Your task to perform on an android device: uninstall "Gmail" Image 0: 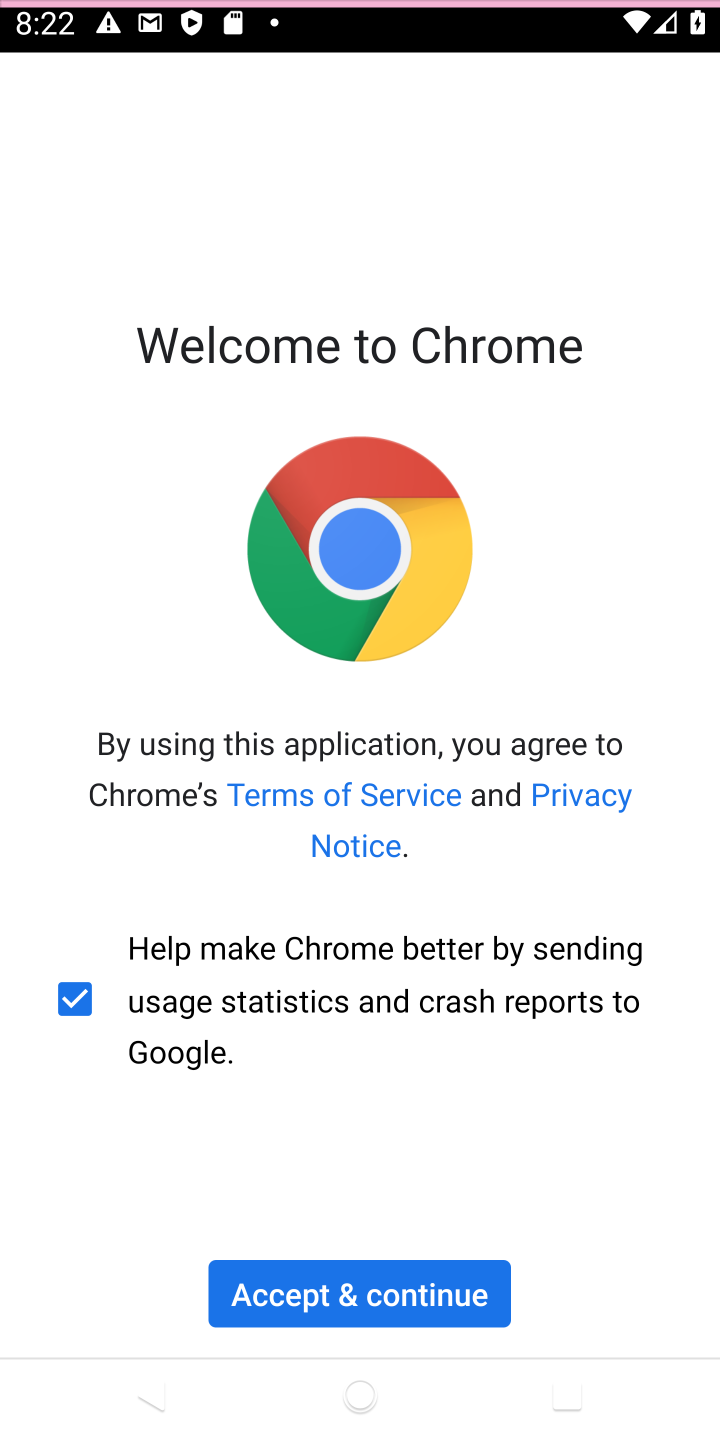
Step 0: press home button
Your task to perform on an android device: uninstall "Gmail" Image 1: 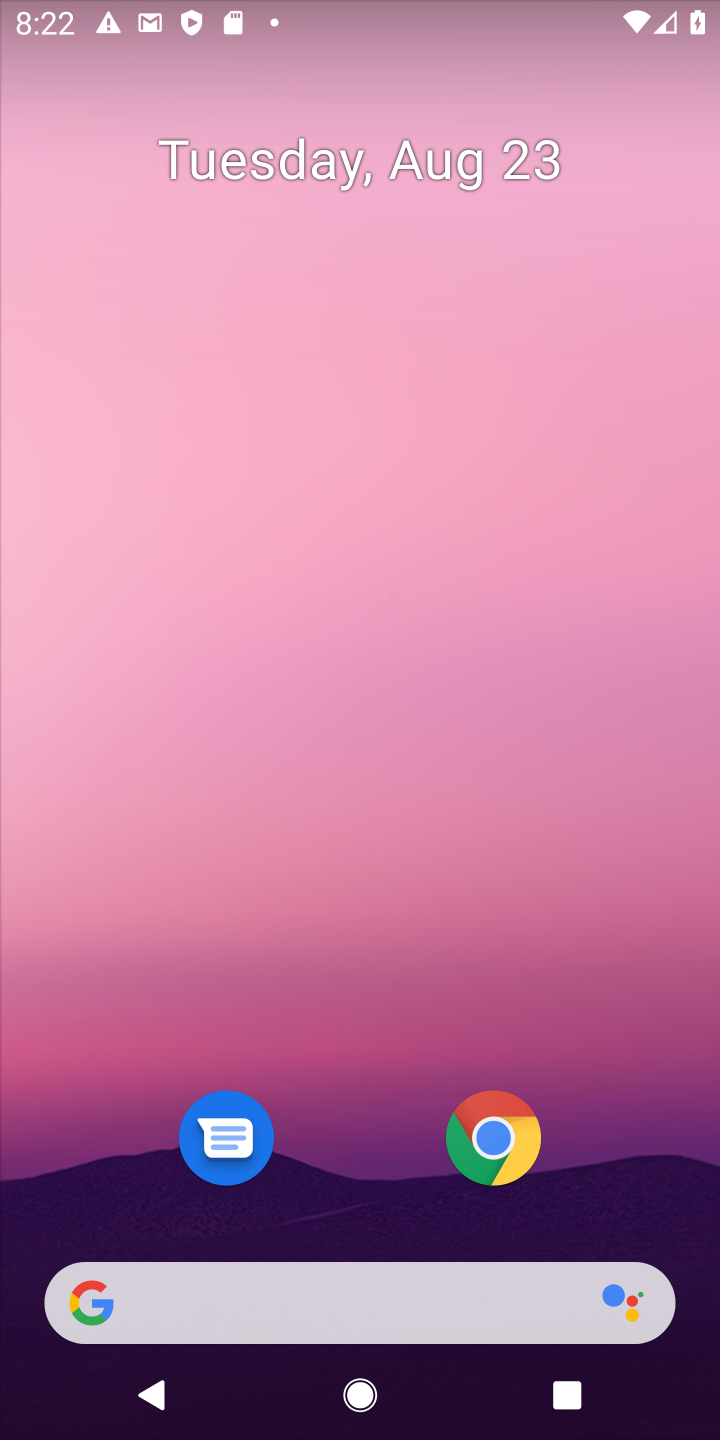
Step 1: drag from (637, 1037) to (599, 190)
Your task to perform on an android device: uninstall "Gmail" Image 2: 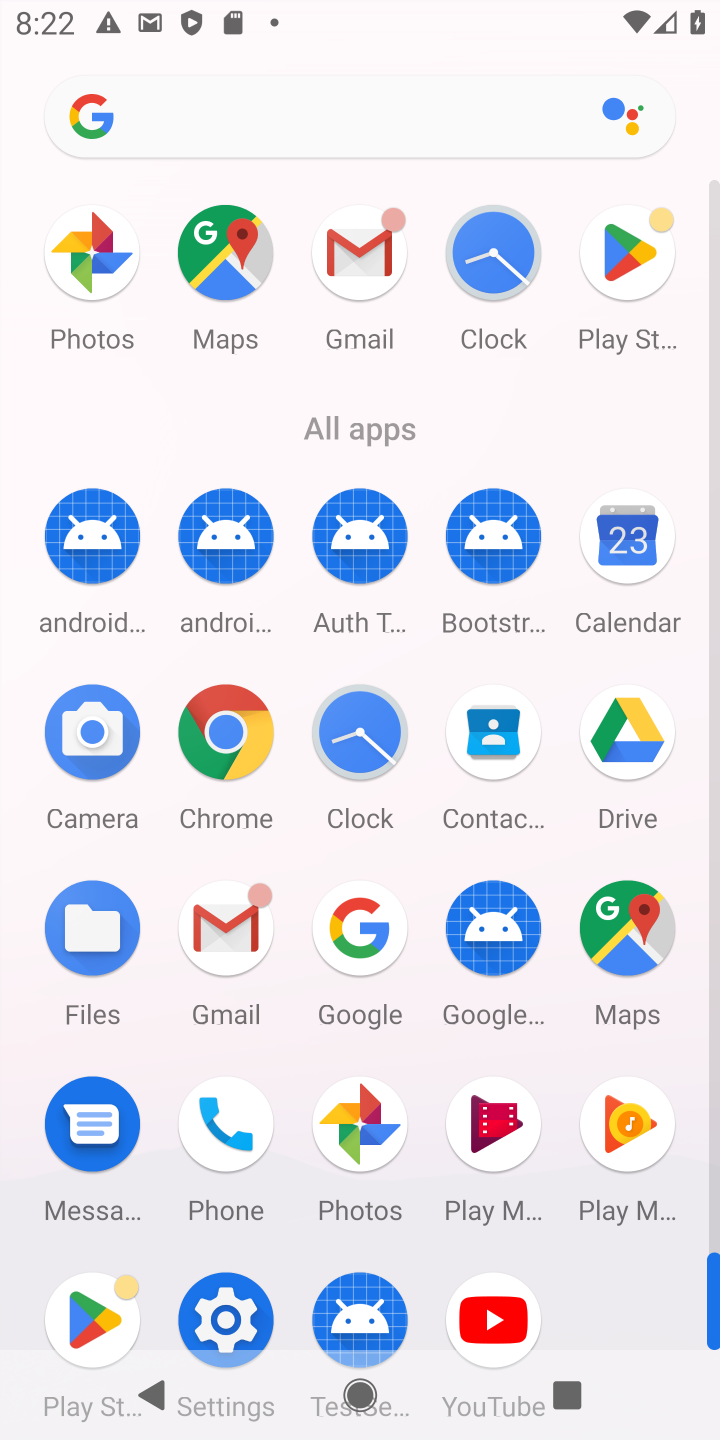
Step 2: drag from (630, 1297) to (632, 736)
Your task to perform on an android device: uninstall "Gmail" Image 3: 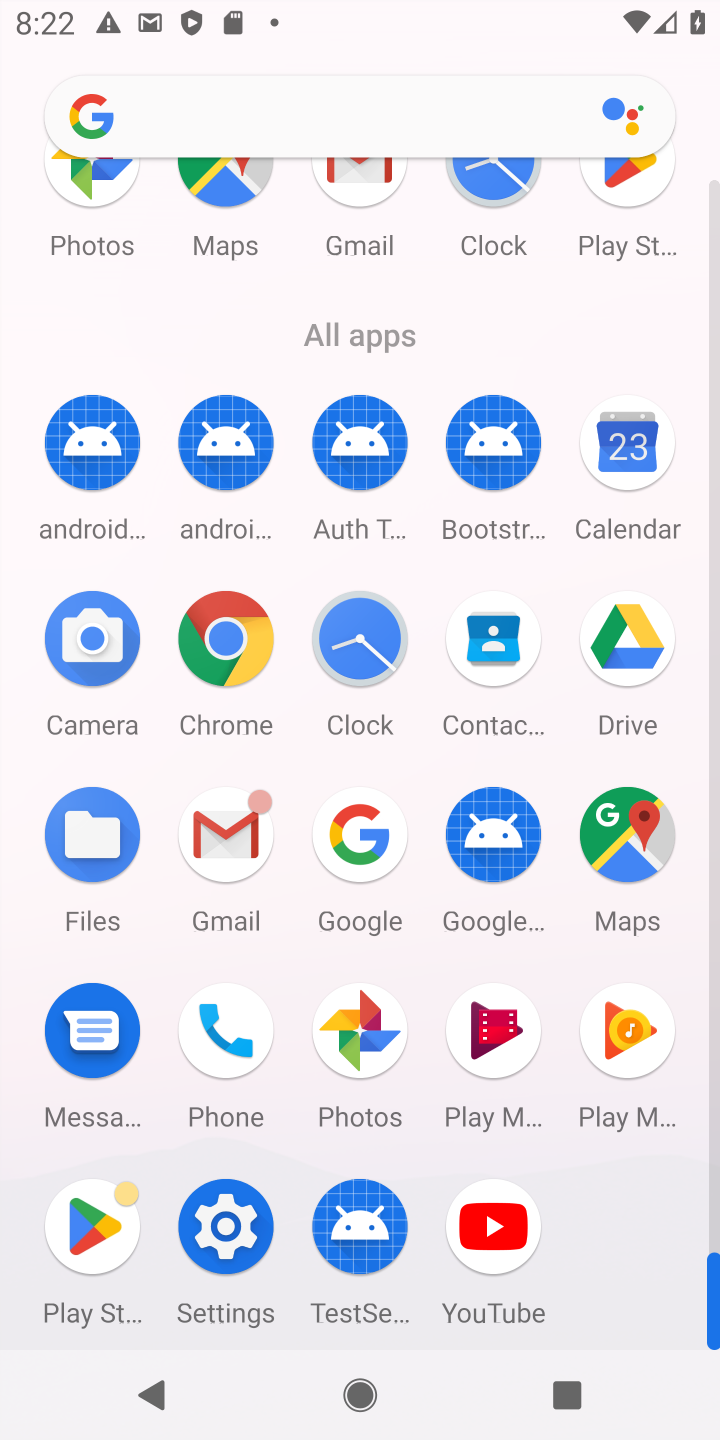
Step 3: click (78, 1215)
Your task to perform on an android device: uninstall "Gmail" Image 4: 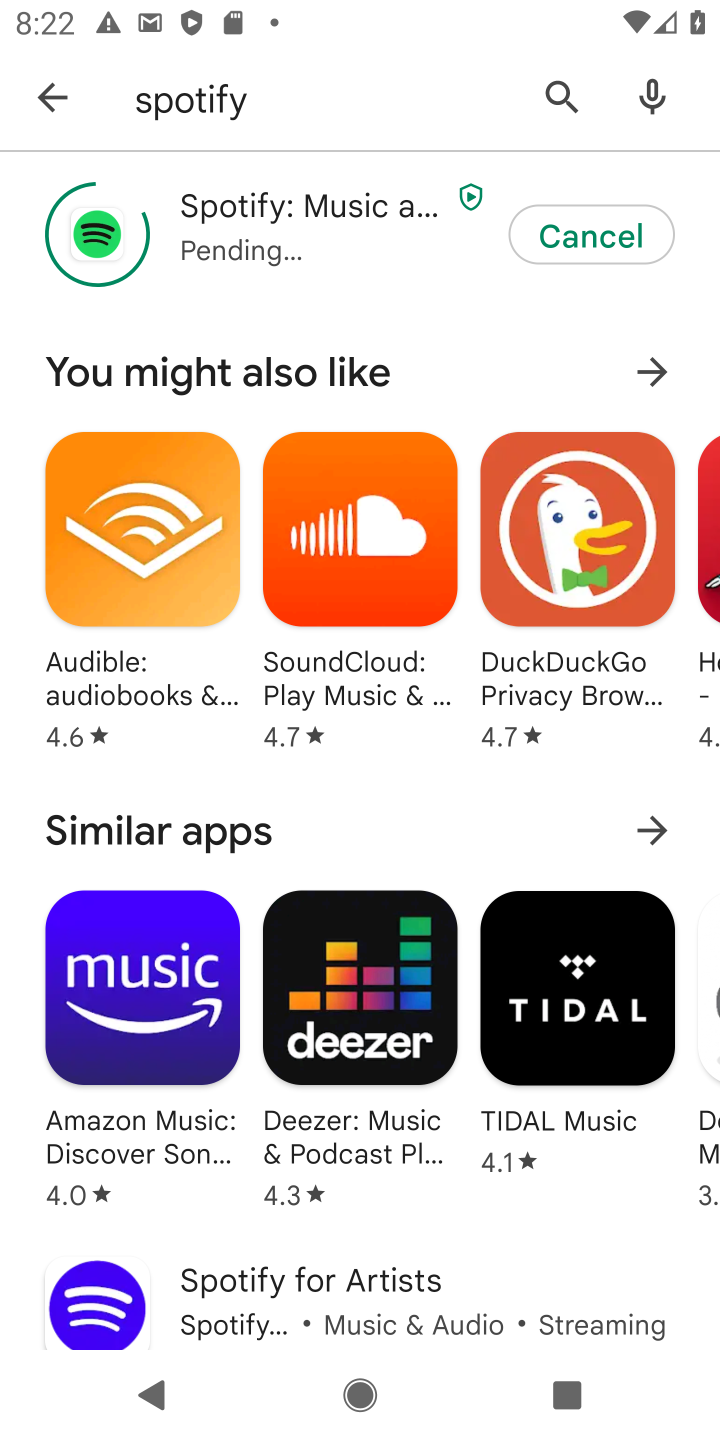
Step 4: press back button
Your task to perform on an android device: uninstall "Gmail" Image 5: 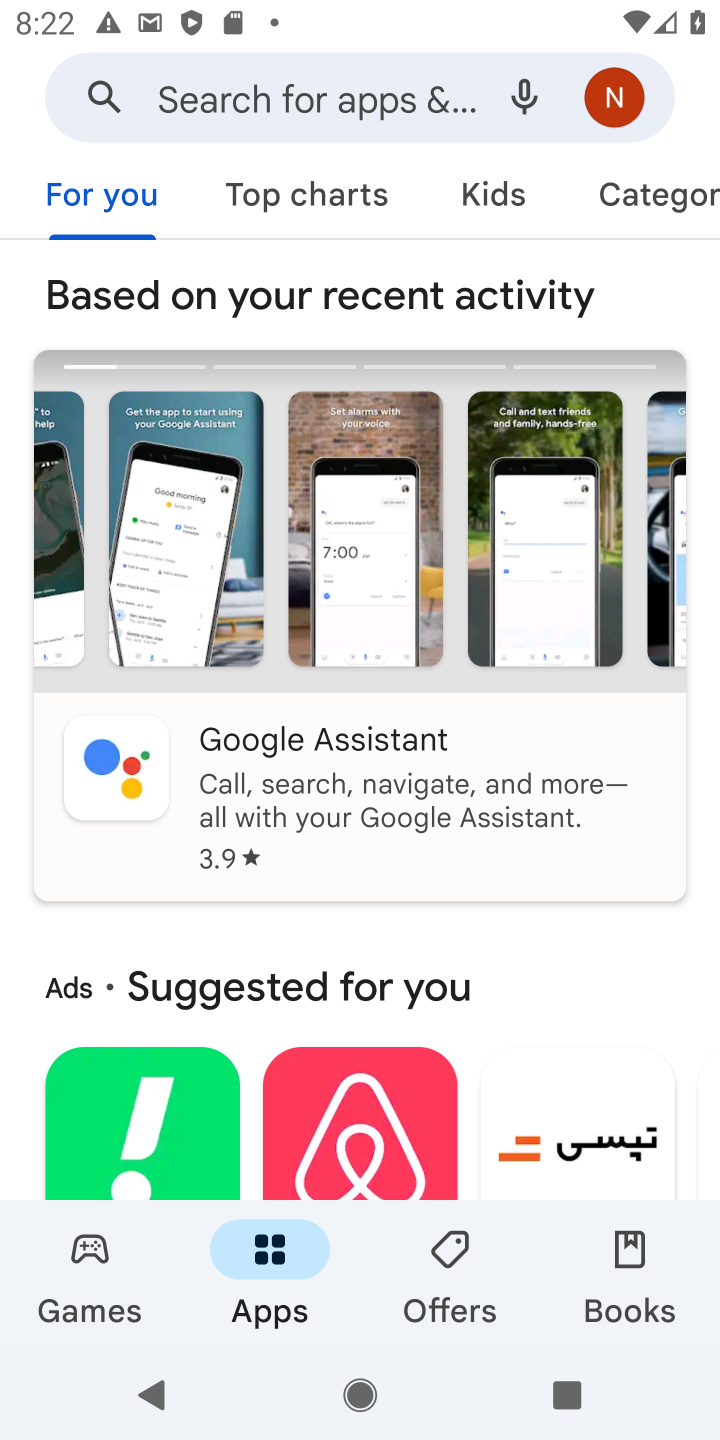
Step 5: click (377, 82)
Your task to perform on an android device: uninstall "Gmail" Image 6: 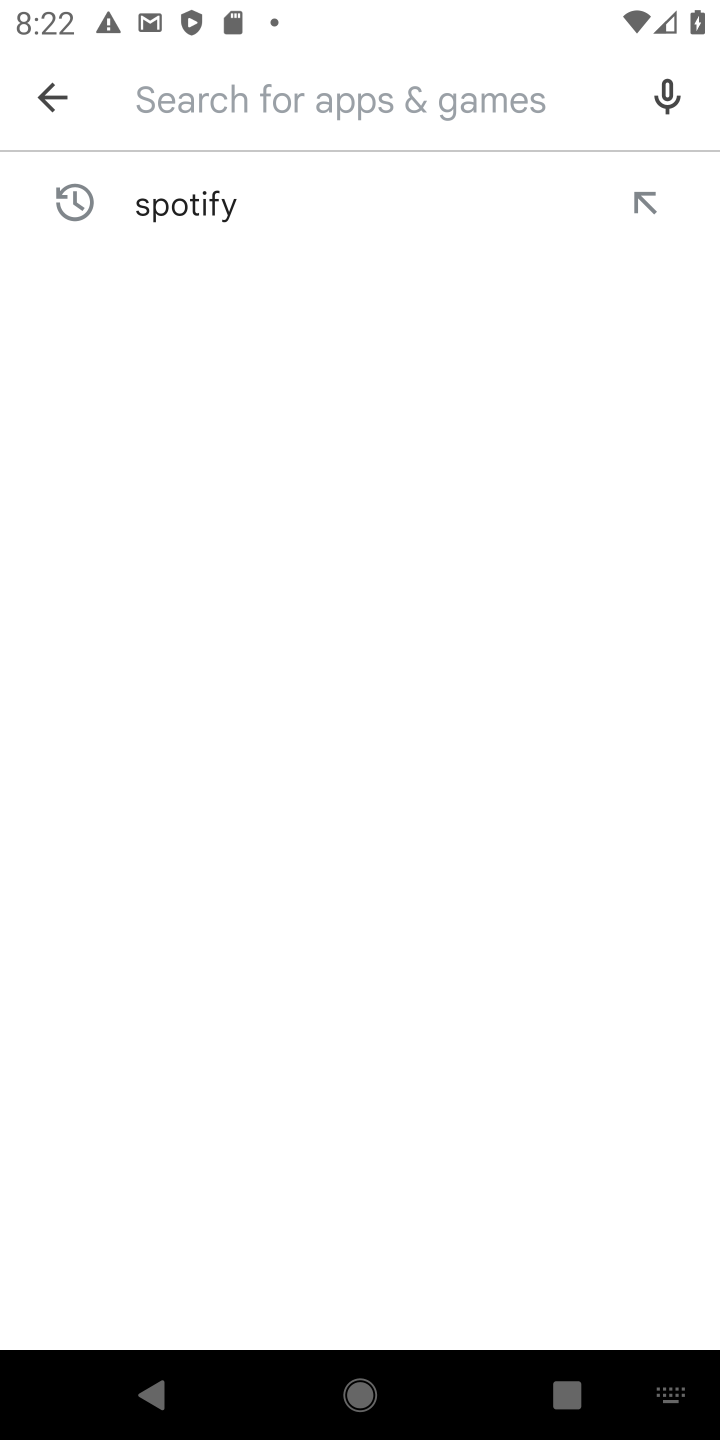
Step 6: press enter
Your task to perform on an android device: uninstall "Gmail" Image 7: 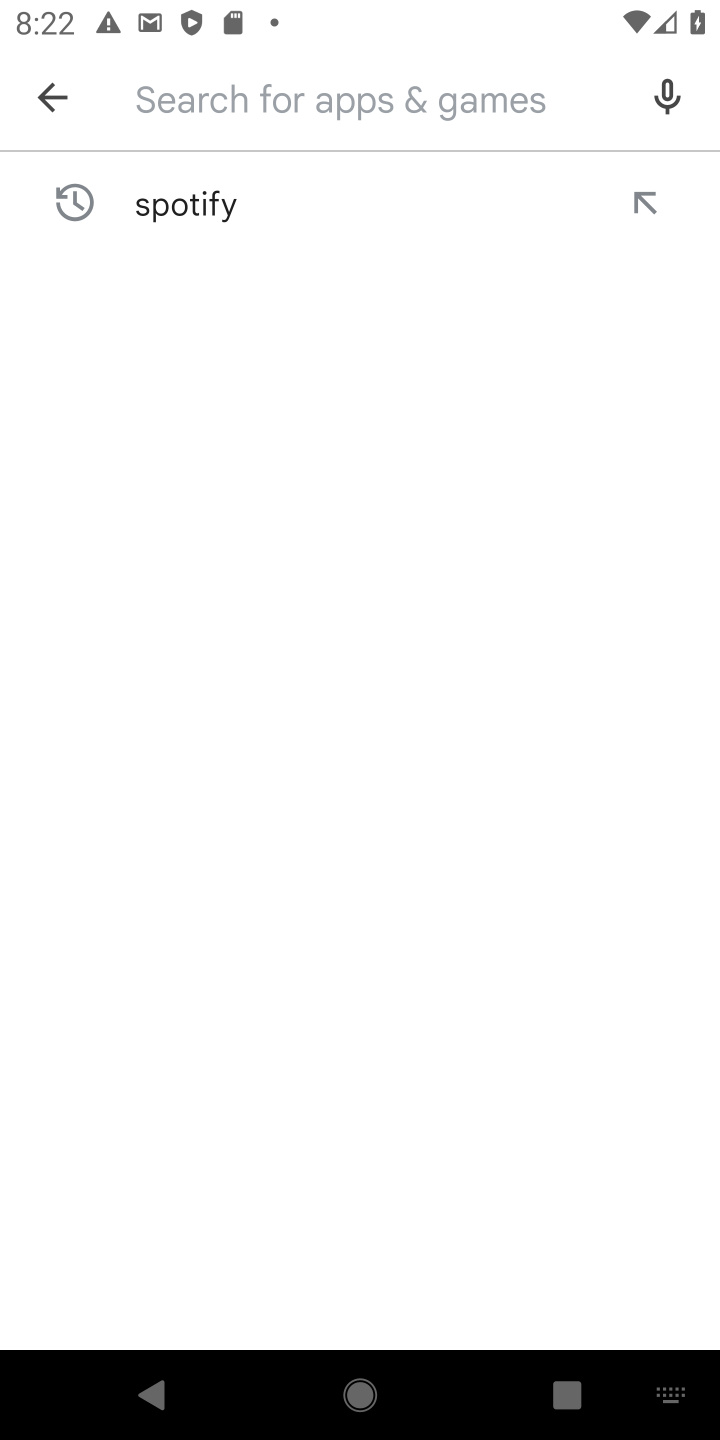
Step 7: type "gmail"
Your task to perform on an android device: uninstall "Gmail" Image 8: 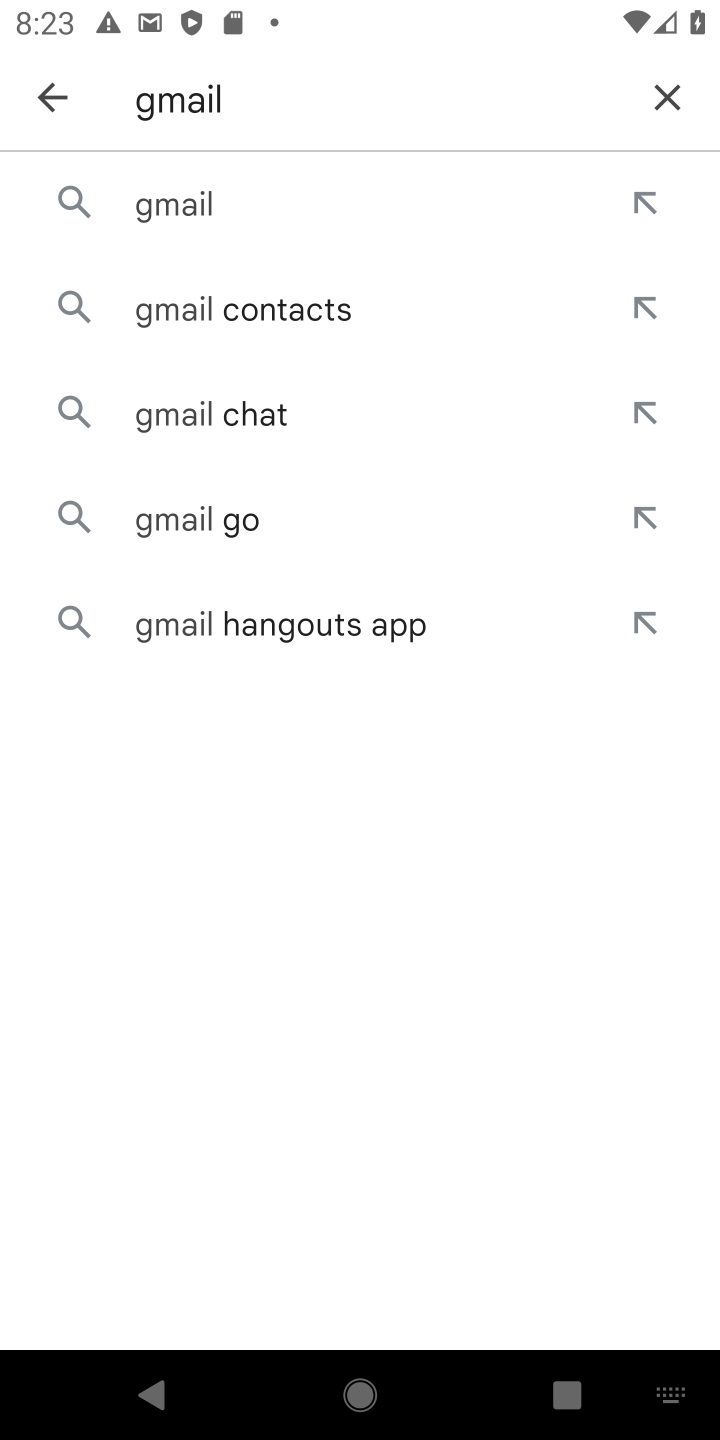
Step 8: click (319, 197)
Your task to perform on an android device: uninstall "Gmail" Image 9: 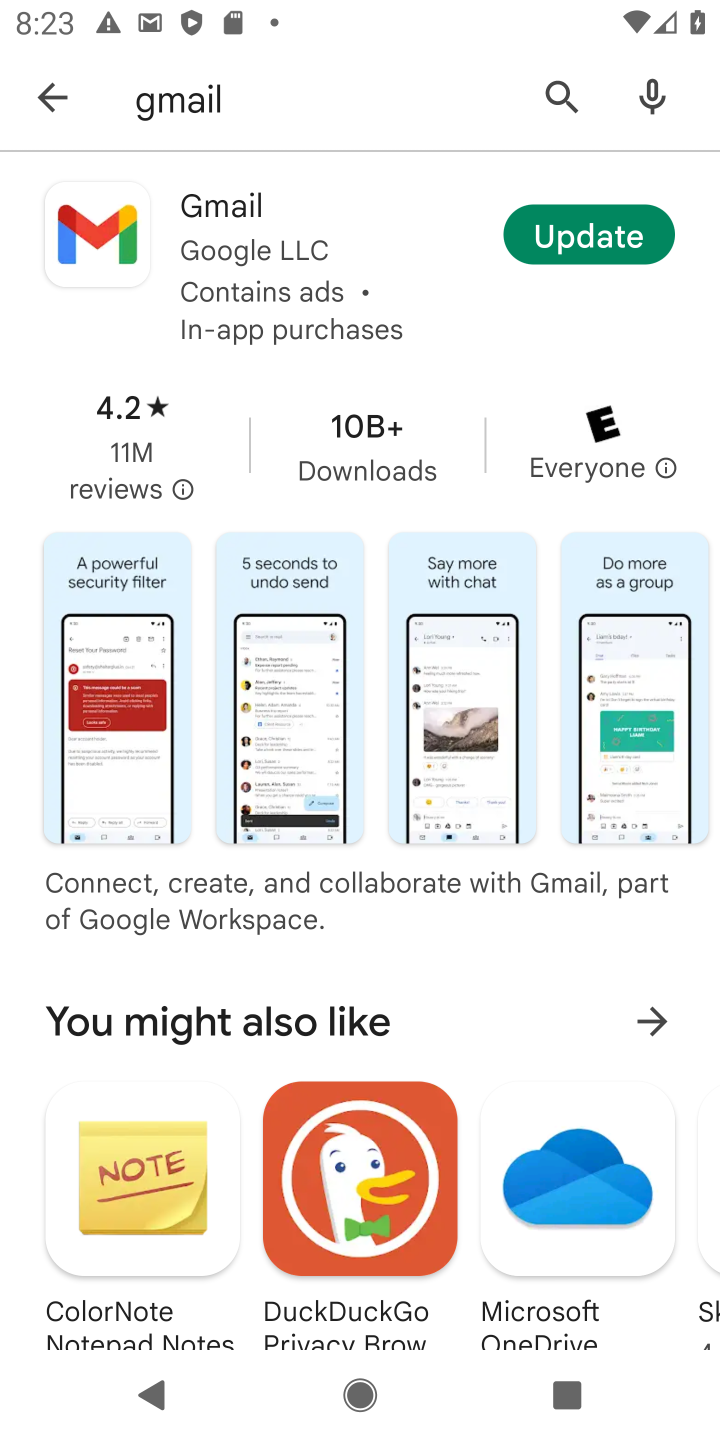
Step 9: task complete